Your task to perform on an android device: turn on the 12-hour format for clock Image 0: 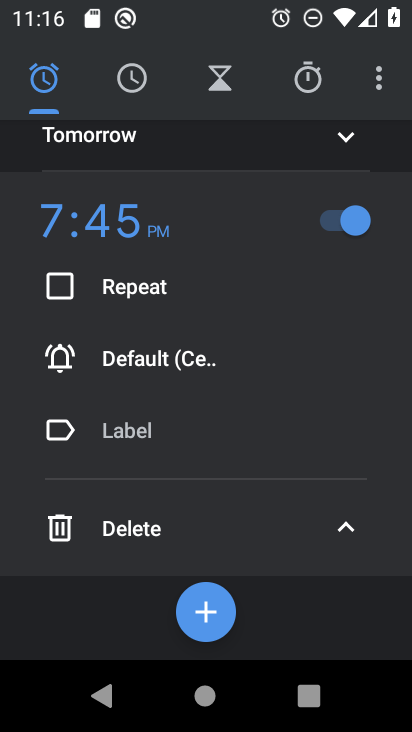
Step 0: press home button
Your task to perform on an android device: turn on the 12-hour format for clock Image 1: 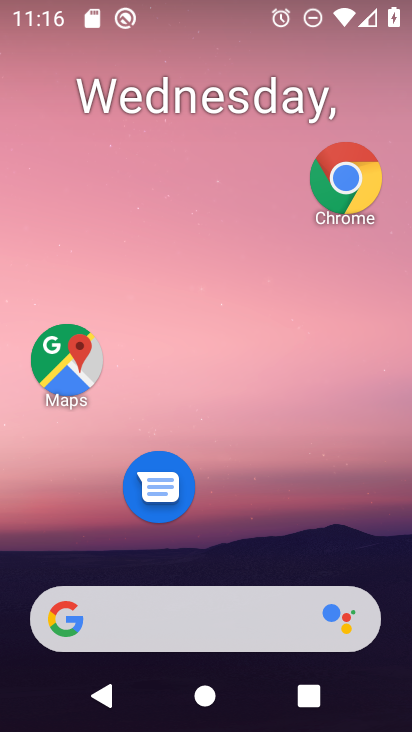
Step 1: drag from (244, 603) to (346, 48)
Your task to perform on an android device: turn on the 12-hour format for clock Image 2: 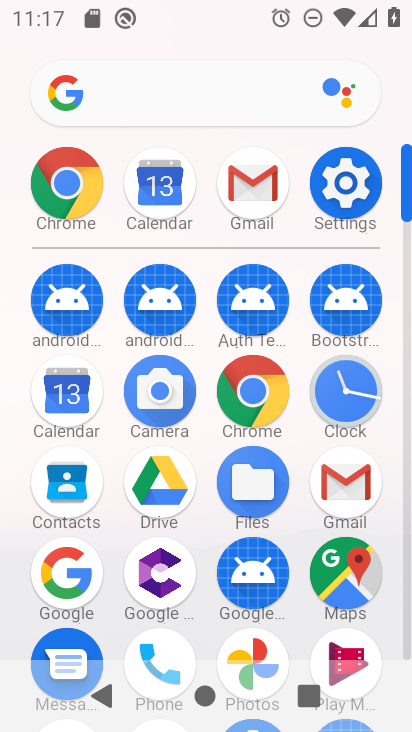
Step 2: click (363, 392)
Your task to perform on an android device: turn on the 12-hour format for clock Image 3: 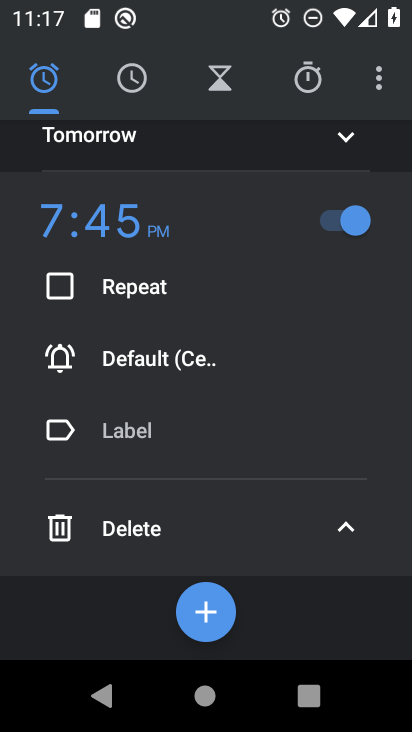
Step 3: click (374, 71)
Your task to perform on an android device: turn on the 12-hour format for clock Image 4: 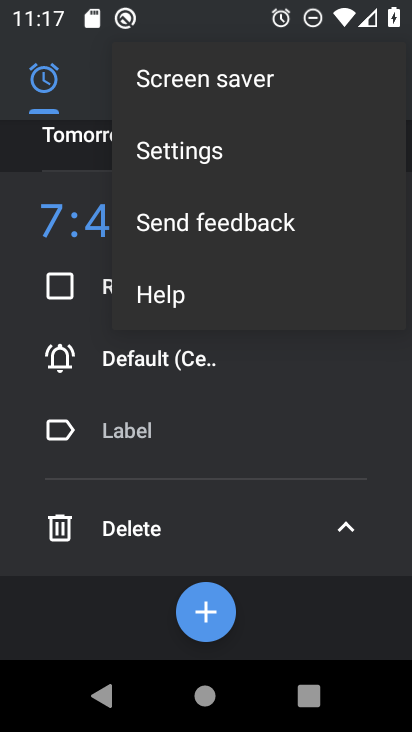
Step 4: click (204, 155)
Your task to perform on an android device: turn on the 12-hour format for clock Image 5: 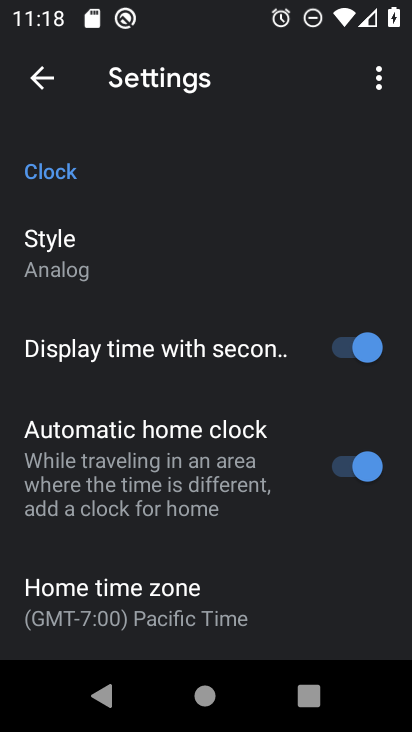
Step 5: drag from (180, 553) to (236, 138)
Your task to perform on an android device: turn on the 12-hour format for clock Image 6: 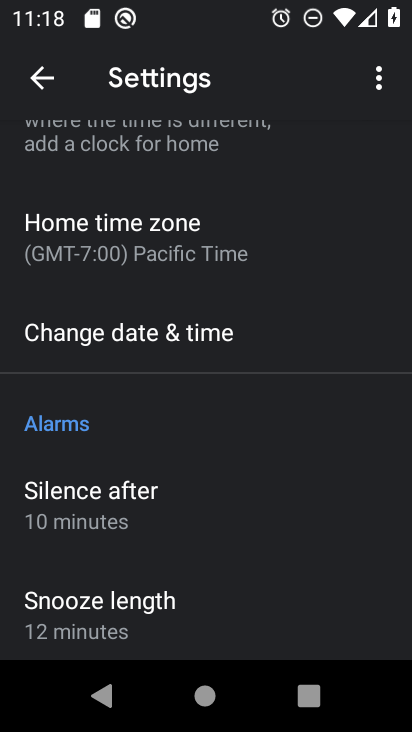
Step 6: click (186, 330)
Your task to perform on an android device: turn on the 12-hour format for clock Image 7: 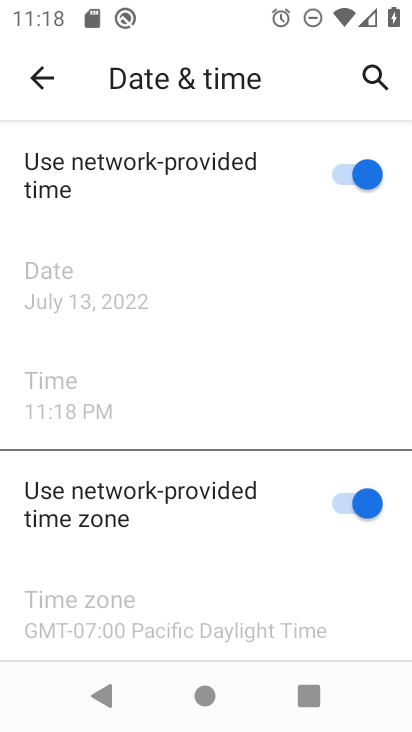
Step 7: task complete